Your task to perform on an android device: Check the news Image 0: 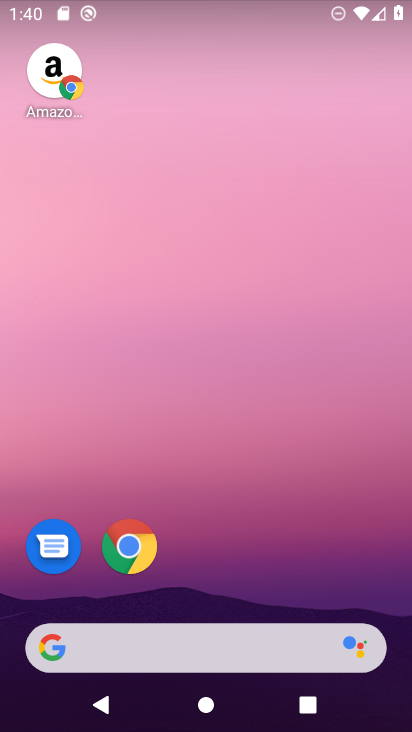
Step 0: drag from (277, 672) to (182, 114)
Your task to perform on an android device: Check the news Image 1: 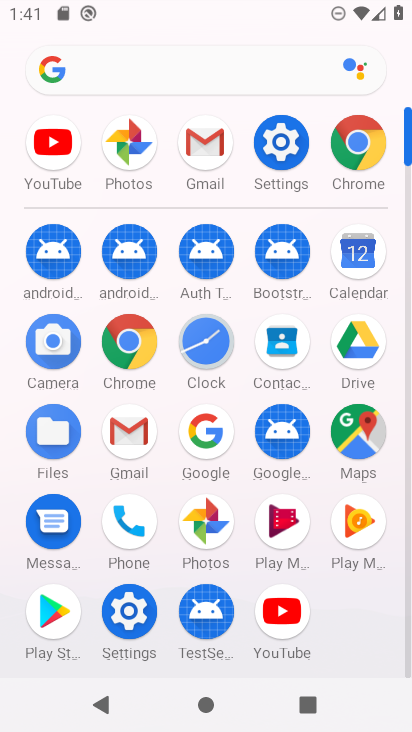
Step 1: click (140, 76)
Your task to perform on an android device: Check the news Image 2: 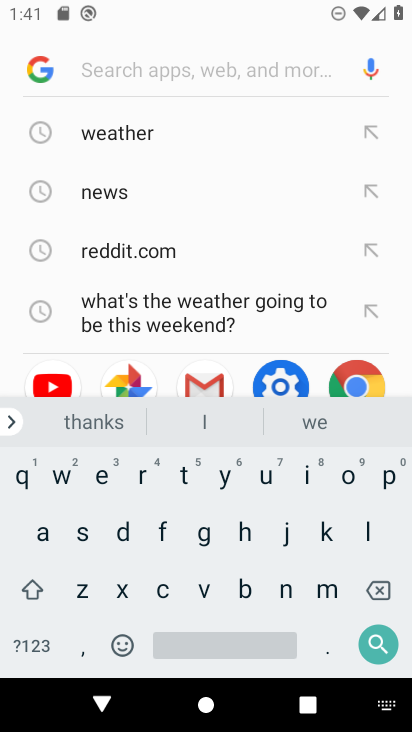
Step 2: click (154, 186)
Your task to perform on an android device: Check the news Image 3: 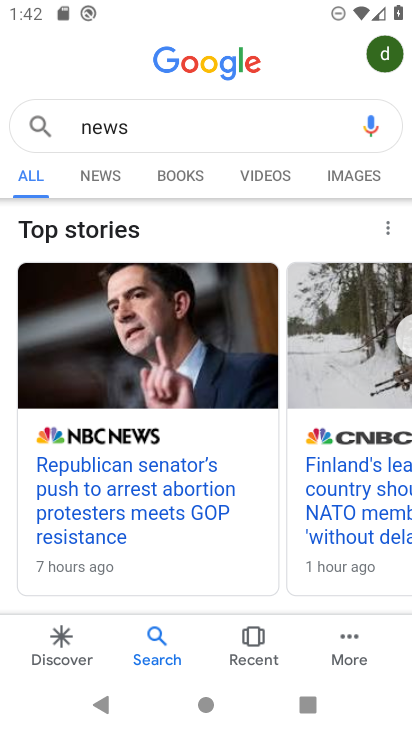
Step 3: task complete